Your task to perform on an android device: empty trash in the gmail app Image 0: 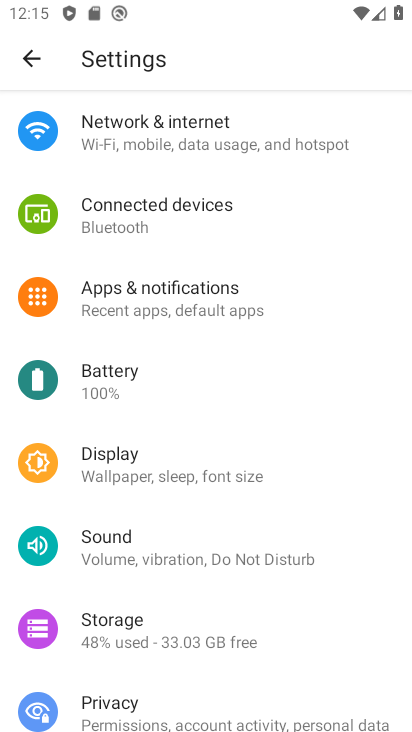
Step 0: press home button
Your task to perform on an android device: empty trash in the gmail app Image 1: 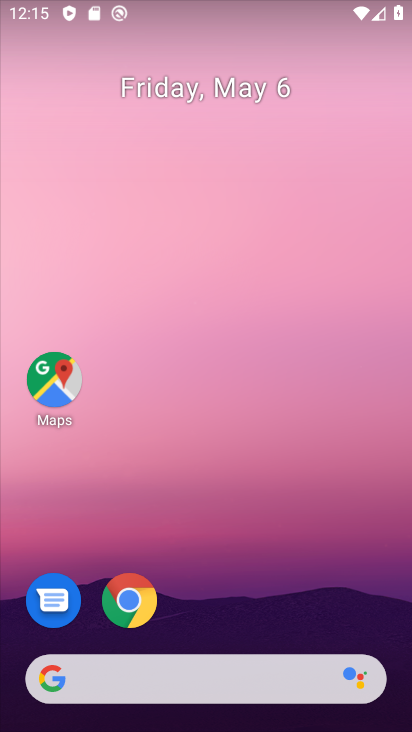
Step 1: drag from (190, 639) to (256, 193)
Your task to perform on an android device: empty trash in the gmail app Image 2: 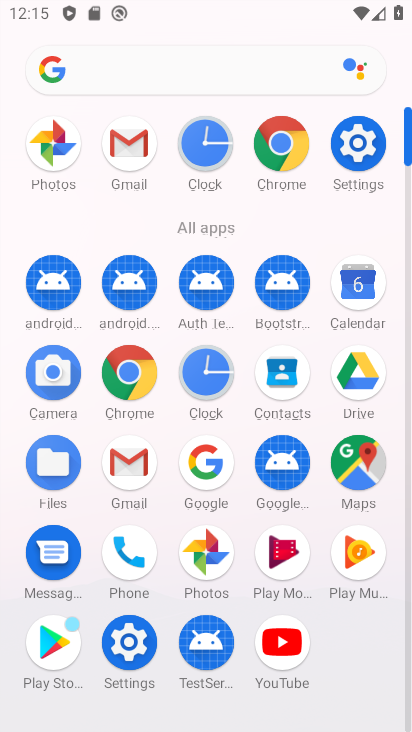
Step 2: click (149, 474)
Your task to perform on an android device: empty trash in the gmail app Image 3: 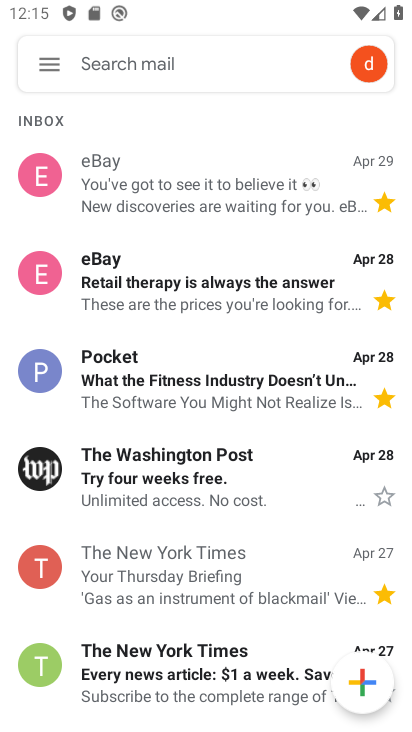
Step 3: click (66, 61)
Your task to perform on an android device: empty trash in the gmail app Image 4: 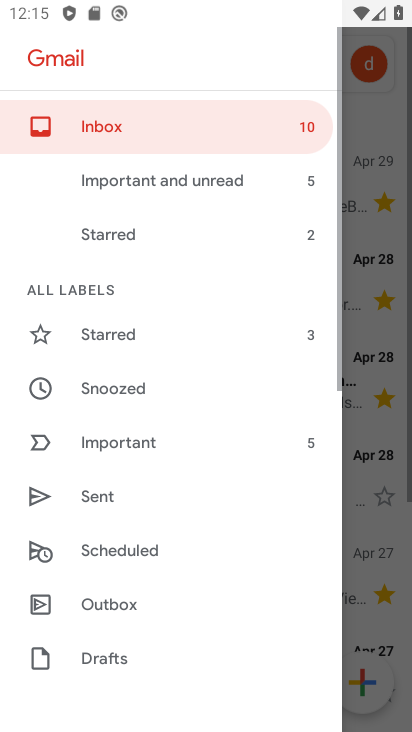
Step 4: drag from (66, 655) to (185, 250)
Your task to perform on an android device: empty trash in the gmail app Image 5: 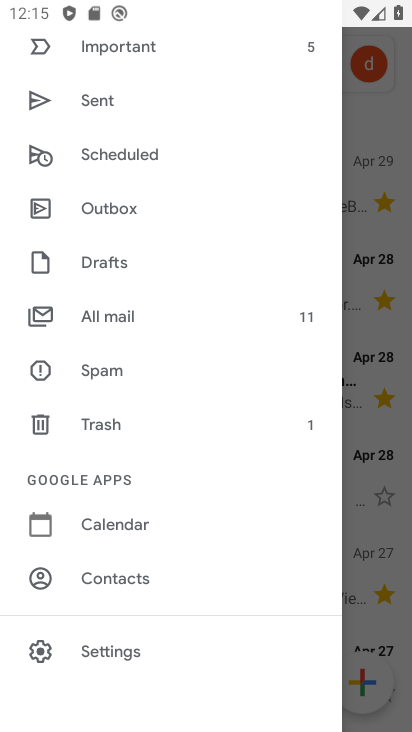
Step 5: click (96, 418)
Your task to perform on an android device: empty trash in the gmail app Image 6: 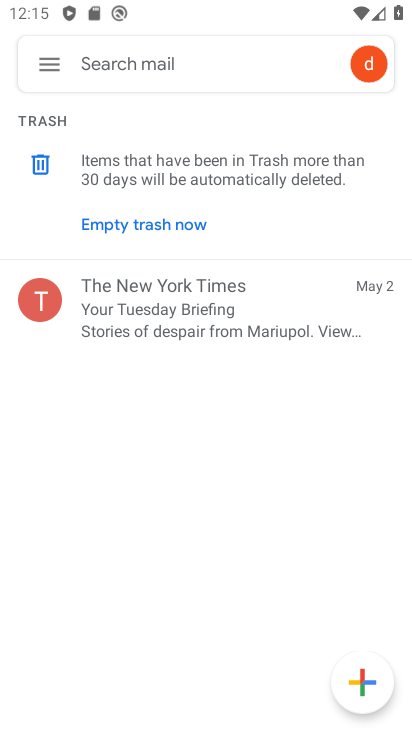
Step 6: click (172, 223)
Your task to perform on an android device: empty trash in the gmail app Image 7: 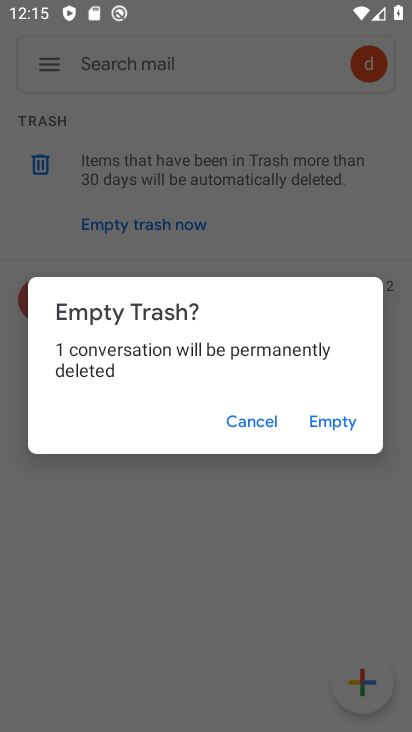
Step 7: click (350, 415)
Your task to perform on an android device: empty trash in the gmail app Image 8: 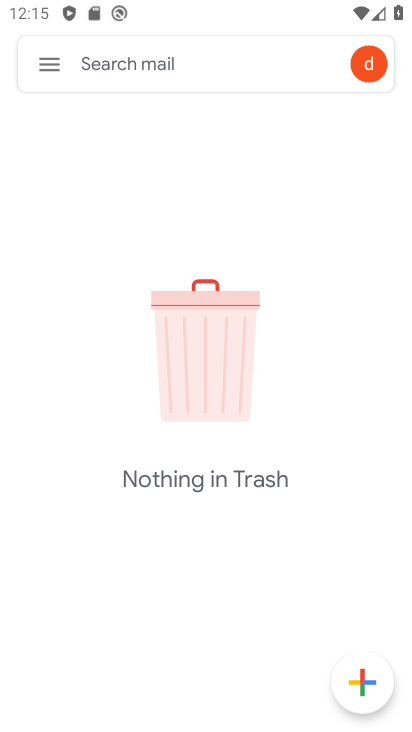
Step 8: task complete